Your task to perform on an android device: turn off notifications in google photos Image 0: 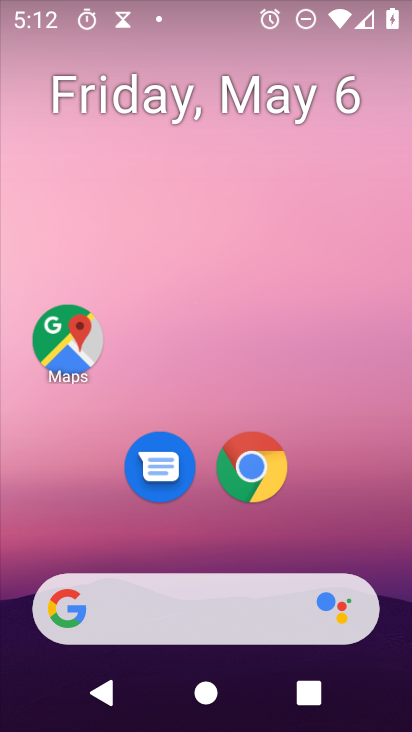
Step 0: drag from (295, 521) to (245, 133)
Your task to perform on an android device: turn off notifications in google photos Image 1: 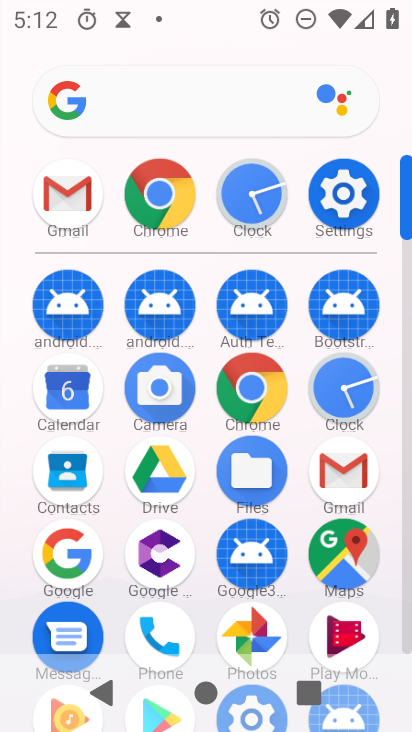
Step 1: click (253, 629)
Your task to perform on an android device: turn off notifications in google photos Image 2: 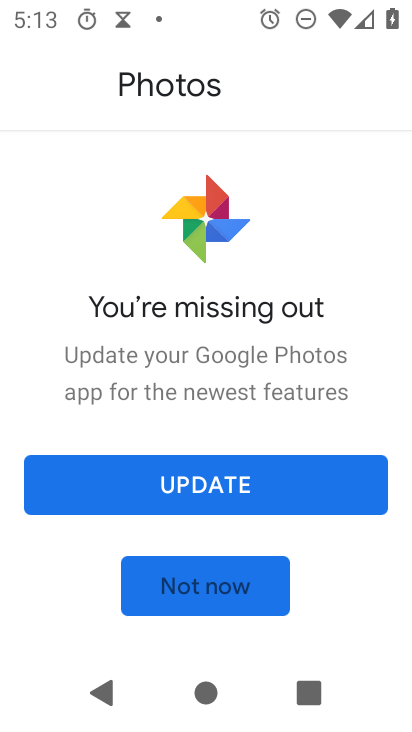
Step 2: click (172, 606)
Your task to perform on an android device: turn off notifications in google photos Image 3: 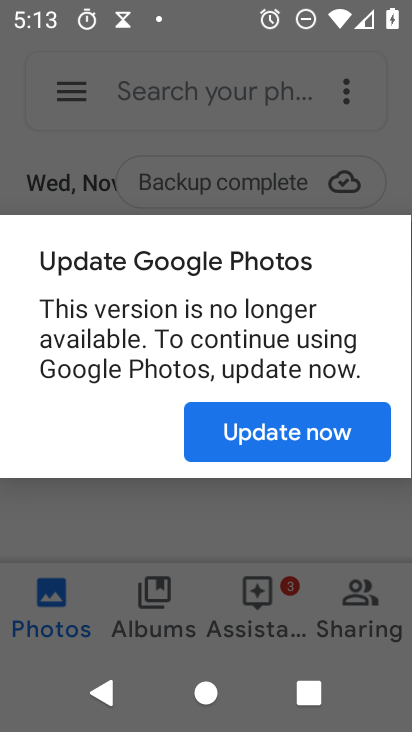
Step 3: click (83, 99)
Your task to perform on an android device: turn off notifications in google photos Image 4: 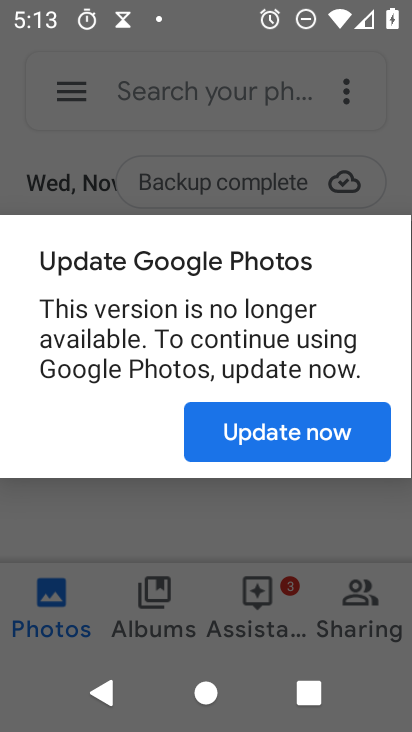
Step 4: click (257, 422)
Your task to perform on an android device: turn off notifications in google photos Image 5: 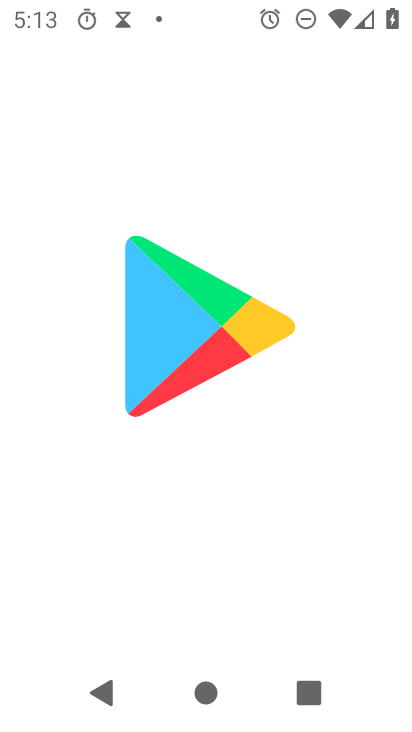
Step 5: click (80, 90)
Your task to perform on an android device: turn off notifications in google photos Image 6: 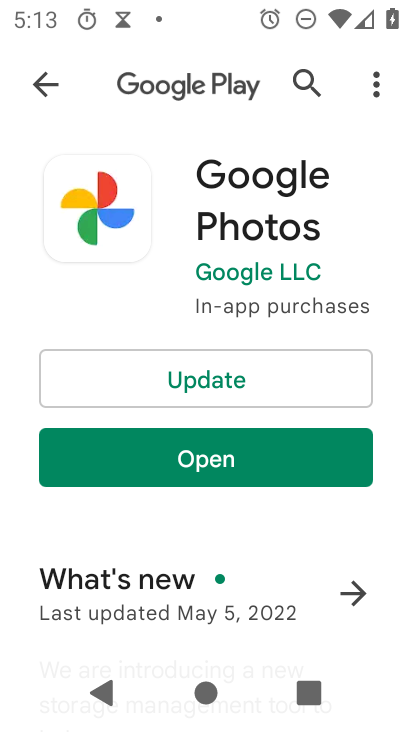
Step 6: click (161, 465)
Your task to perform on an android device: turn off notifications in google photos Image 7: 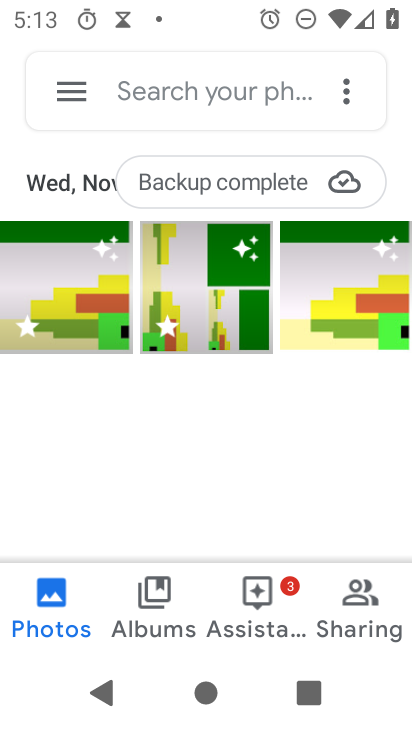
Step 7: click (72, 103)
Your task to perform on an android device: turn off notifications in google photos Image 8: 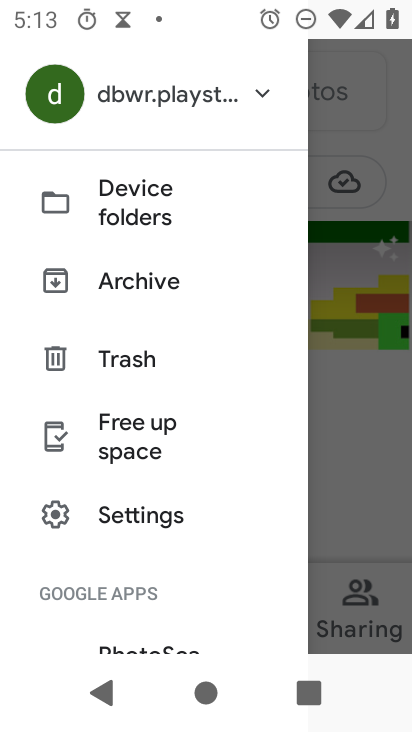
Step 8: click (123, 520)
Your task to perform on an android device: turn off notifications in google photos Image 9: 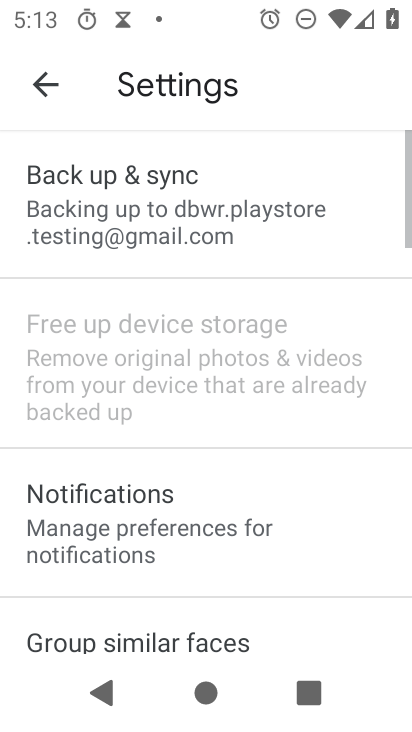
Step 9: click (130, 501)
Your task to perform on an android device: turn off notifications in google photos Image 10: 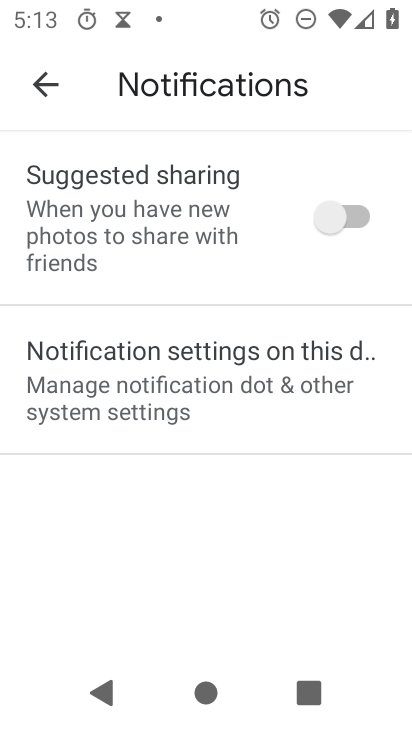
Step 10: click (245, 381)
Your task to perform on an android device: turn off notifications in google photos Image 11: 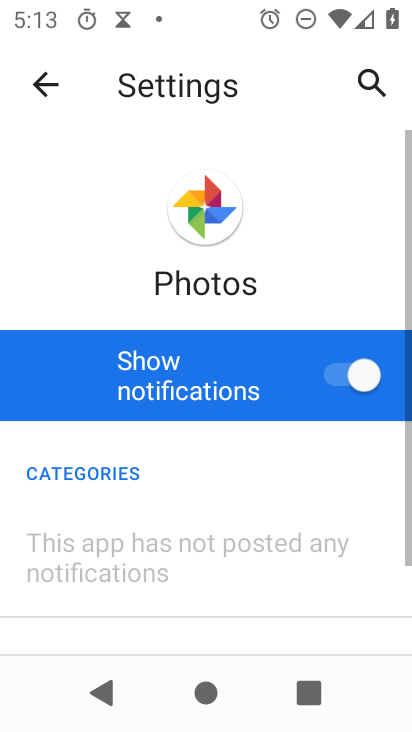
Step 11: click (341, 369)
Your task to perform on an android device: turn off notifications in google photos Image 12: 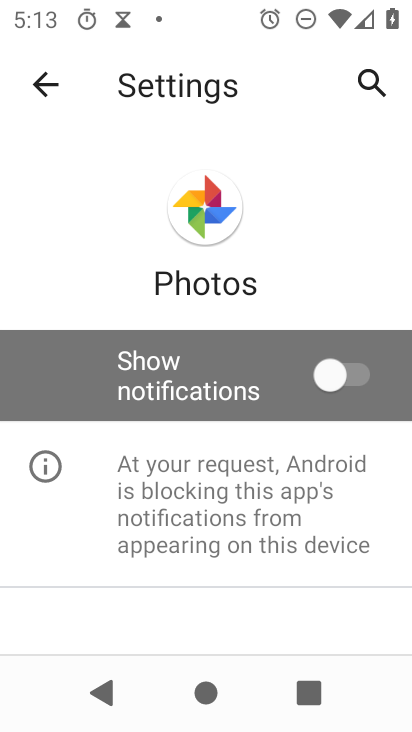
Step 12: task complete